Your task to perform on an android device: Open the calendar app, open the side menu, and click the "Day" option Image 0: 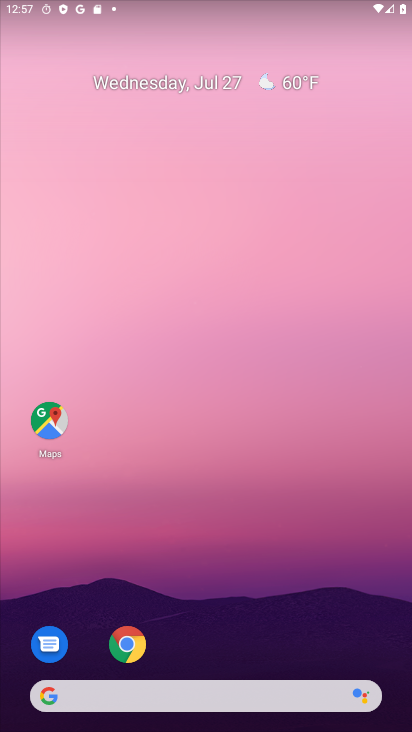
Step 0: drag from (170, 654) to (215, 218)
Your task to perform on an android device: Open the calendar app, open the side menu, and click the "Day" option Image 1: 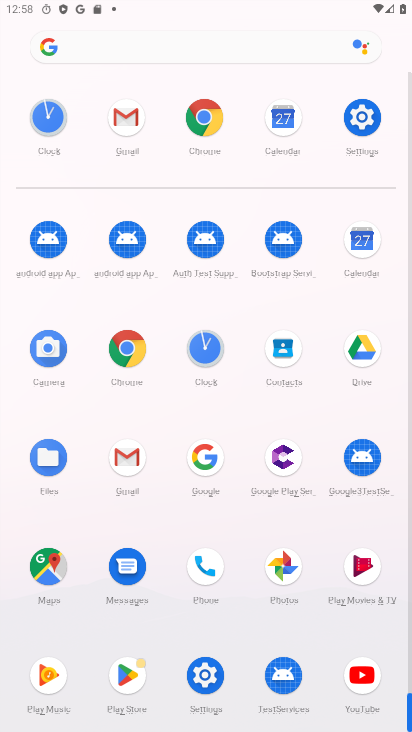
Step 1: click (356, 235)
Your task to perform on an android device: Open the calendar app, open the side menu, and click the "Day" option Image 2: 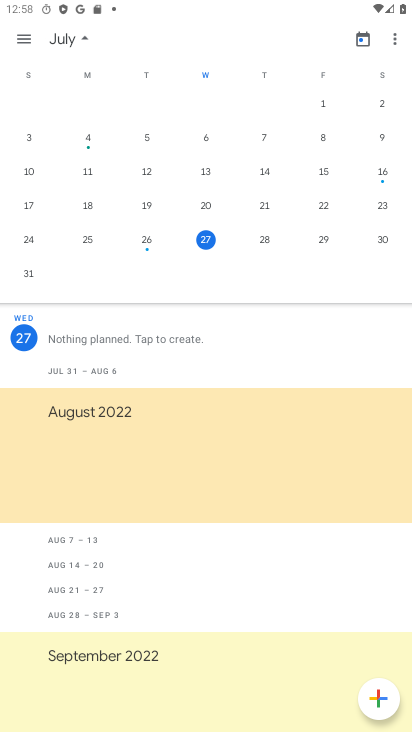
Step 2: click (21, 43)
Your task to perform on an android device: Open the calendar app, open the side menu, and click the "Day" option Image 3: 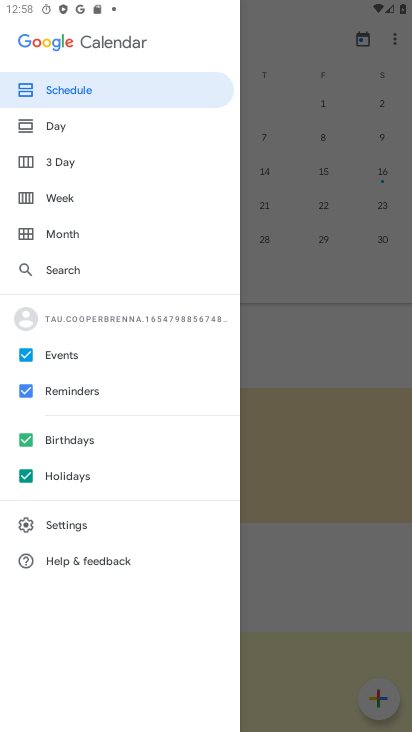
Step 3: click (45, 127)
Your task to perform on an android device: Open the calendar app, open the side menu, and click the "Day" option Image 4: 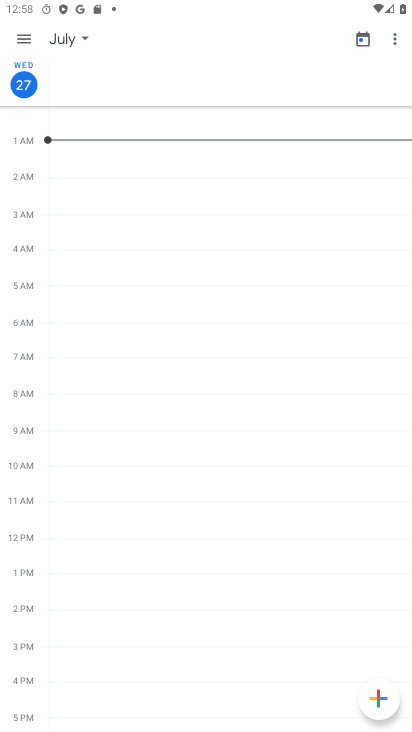
Step 4: click (355, 47)
Your task to perform on an android device: Open the calendar app, open the side menu, and click the "Day" option Image 5: 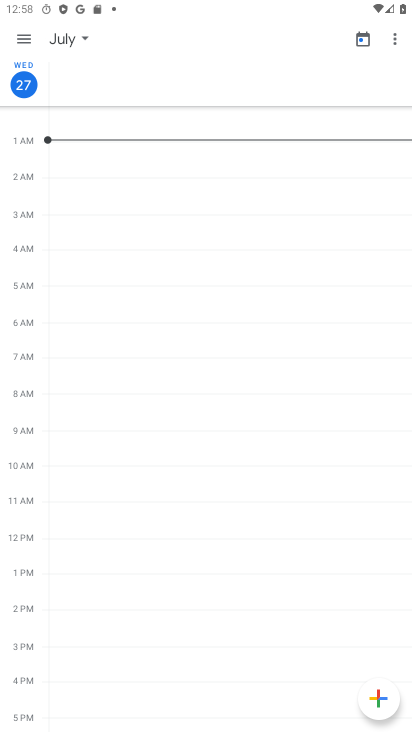
Step 5: task complete